Your task to perform on an android device: Search for vegetarian restaurants on Maps Image 0: 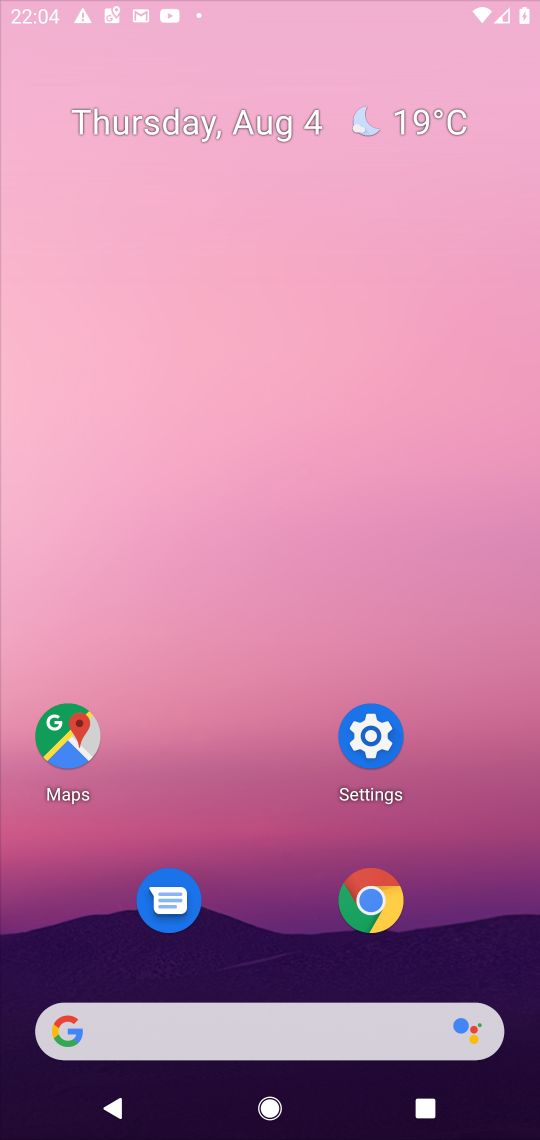
Step 0: press home button
Your task to perform on an android device: Search for vegetarian restaurants on Maps Image 1: 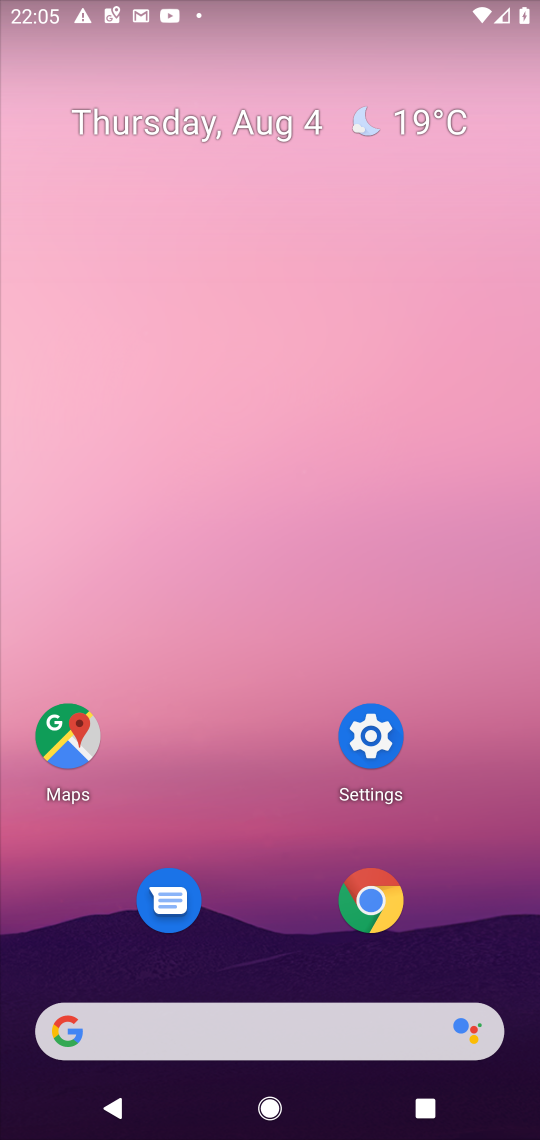
Step 1: click (65, 733)
Your task to perform on an android device: Search for vegetarian restaurants on Maps Image 2: 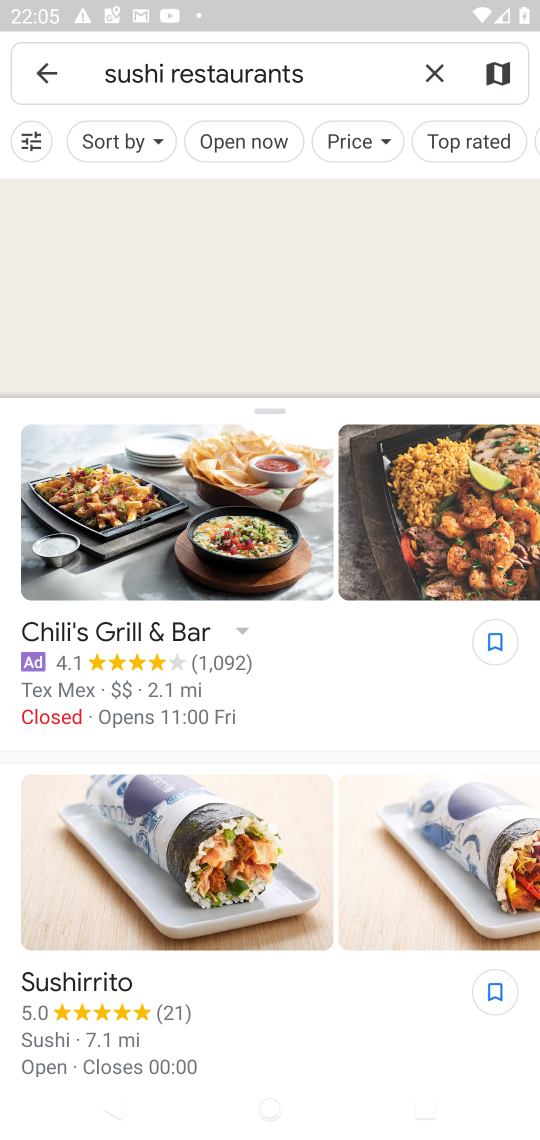
Step 2: click (432, 63)
Your task to perform on an android device: Search for vegetarian restaurants on Maps Image 3: 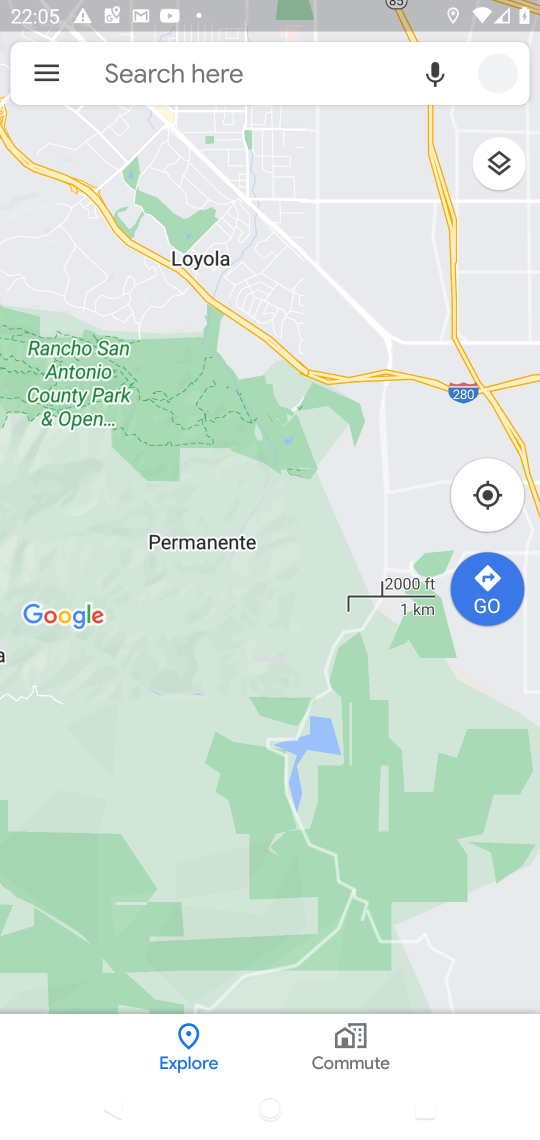
Step 3: click (148, 69)
Your task to perform on an android device: Search for vegetarian restaurants on Maps Image 4: 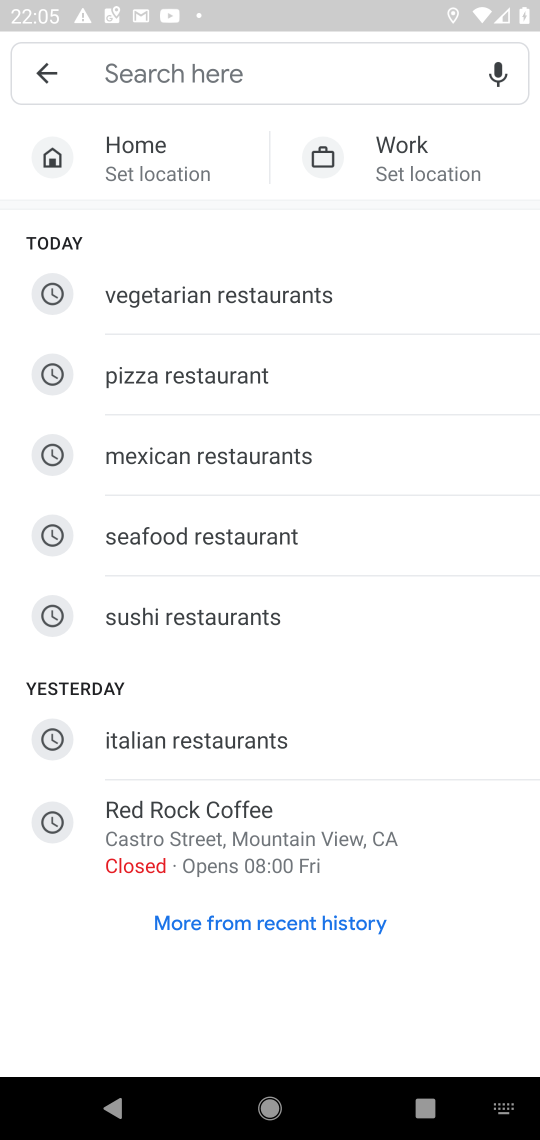
Step 4: click (230, 297)
Your task to perform on an android device: Search for vegetarian restaurants on Maps Image 5: 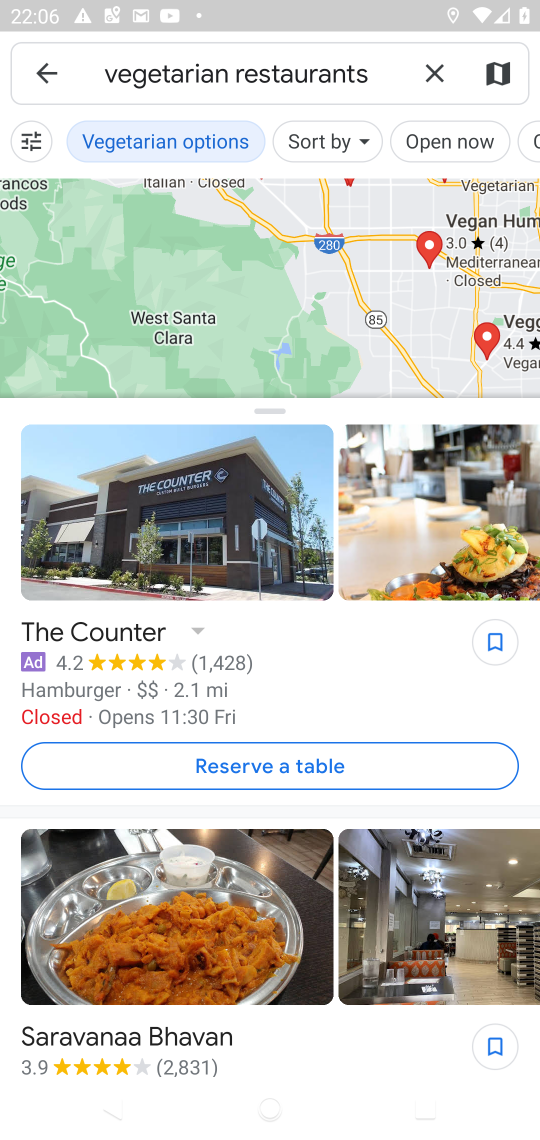
Step 5: task complete